Your task to perform on an android device: move a message to another label in the gmail app Image 0: 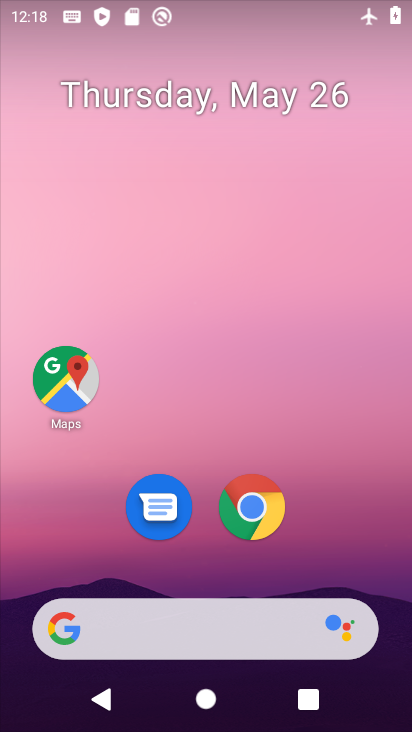
Step 0: drag from (193, 577) to (240, 101)
Your task to perform on an android device: move a message to another label in the gmail app Image 1: 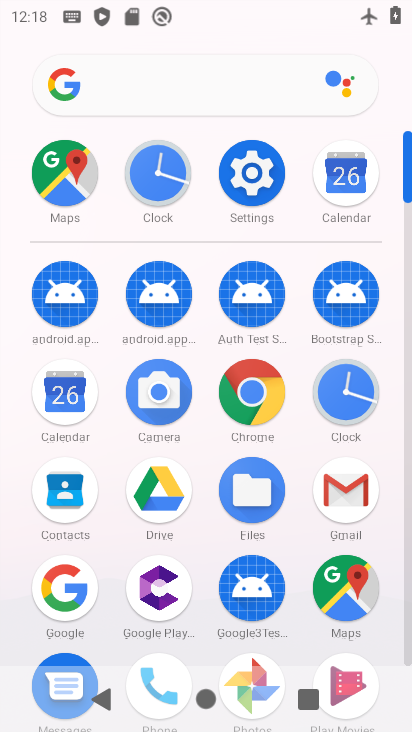
Step 1: click (338, 479)
Your task to perform on an android device: move a message to another label in the gmail app Image 2: 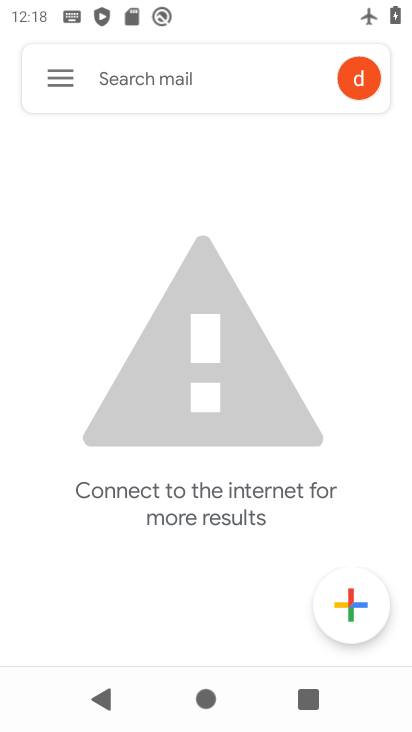
Step 2: click (53, 85)
Your task to perform on an android device: move a message to another label in the gmail app Image 3: 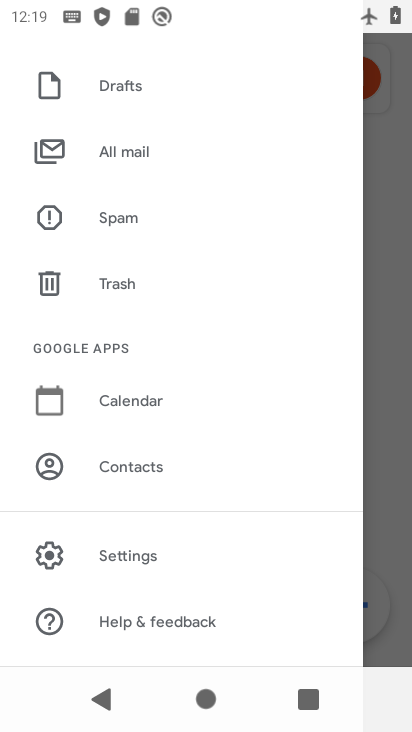
Step 3: click (168, 161)
Your task to perform on an android device: move a message to another label in the gmail app Image 4: 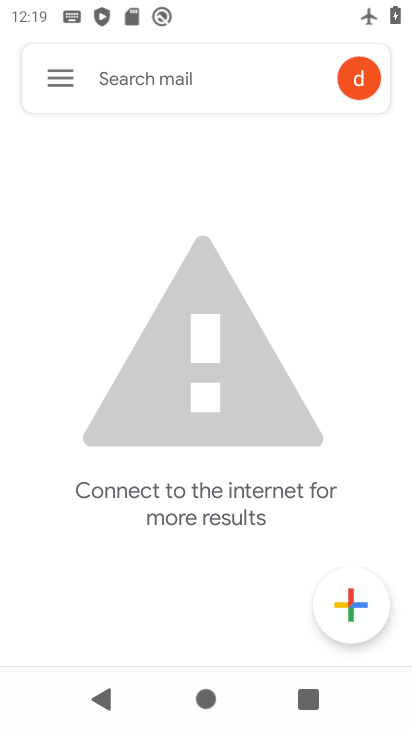
Step 4: task complete